Your task to perform on an android device: Search for the best websites on the internet Image 0: 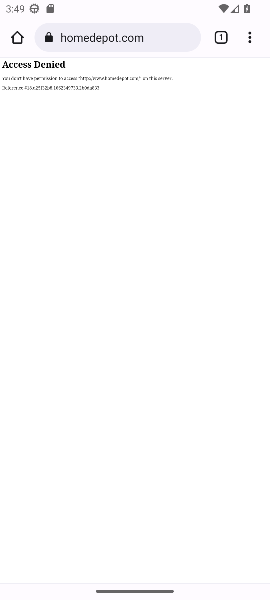
Step 0: press home button
Your task to perform on an android device: Search for the best websites on the internet Image 1: 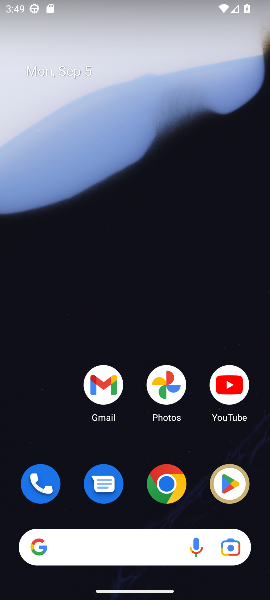
Step 1: click (169, 482)
Your task to perform on an android device: Search for the best websites on the internet Image 2: 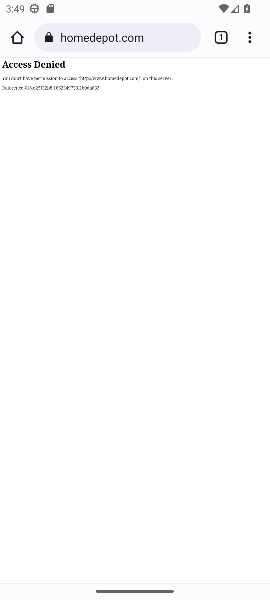
Step 2: click (152, 42)
Your task to perform on an android device: Search for the best websites on the internet Image 3: 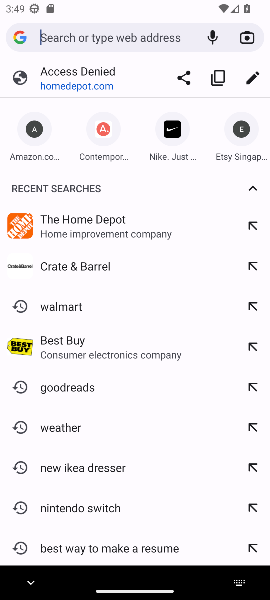
Step 3: type "best websites on the internet"
Your task to perform on an android device: Search for the best websites on the internet Image 4: 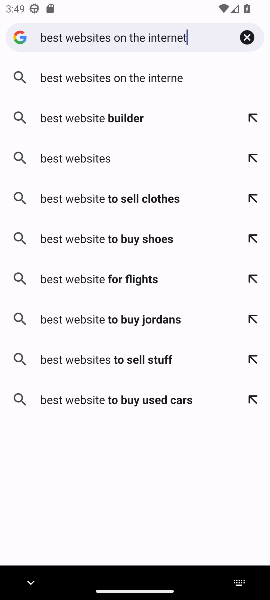
Step 4: press enter
Your task to perform on an android device: Search for the best websites on the internet Image 5: 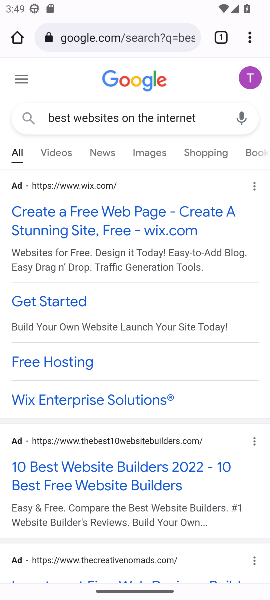
Step 5: drag from (90, 507) to (144, 381)
Your task to perform on an android device: Search for the best websites on the internet Image 6: 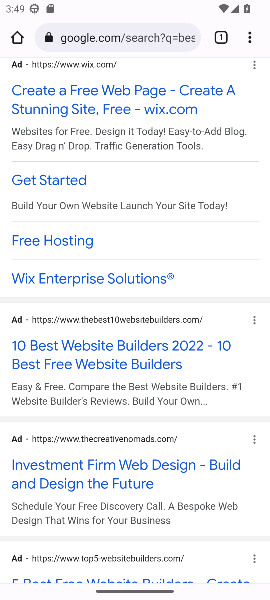
Step 6: click (137, 342)
Your task to perform on an android device: Search for the best websites on the internet Image 7: 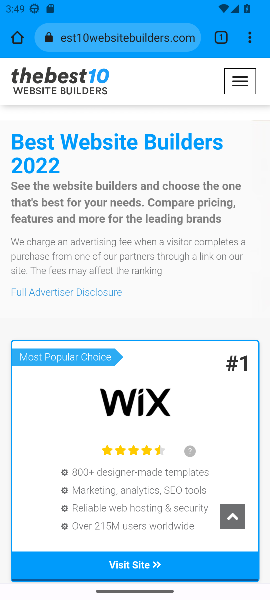
Step 7: task complete